Your task to perform on an android device: show emergency info Image 0: 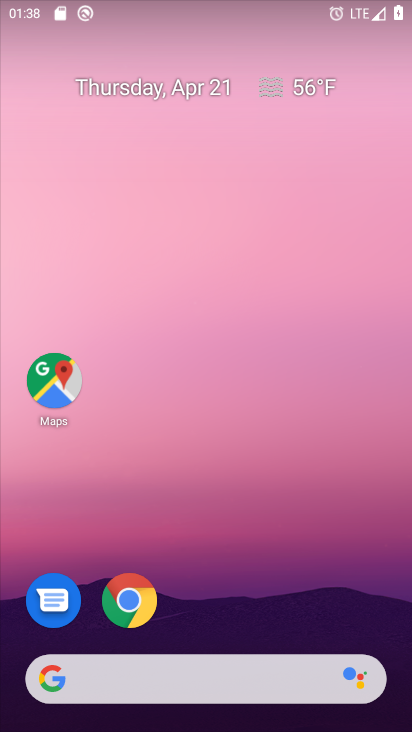
Step 0: drag from (287, 599) to (280, 99)
Your task to perform on an android device: show emergency info Image 1: 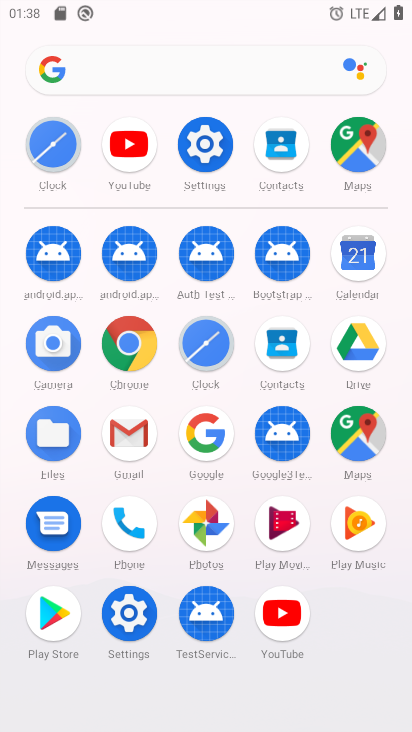
Step 1: click (213, 144)
Your task to perform on an android device: show emergency info Image 2: 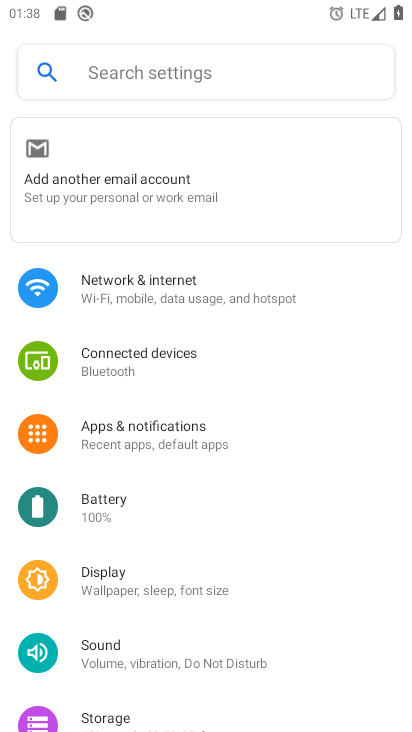
Step 2: drag from (199, 639) to (210, 151)
Your task to perform on an android device: show emergency info Image 3: 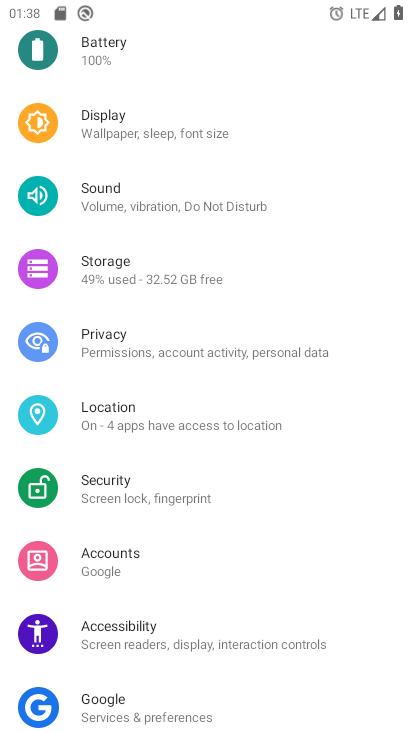
Step 3: drag from (235, 683) to (238, 229)
Your task to perform on an android device: show emergency info Image 4: 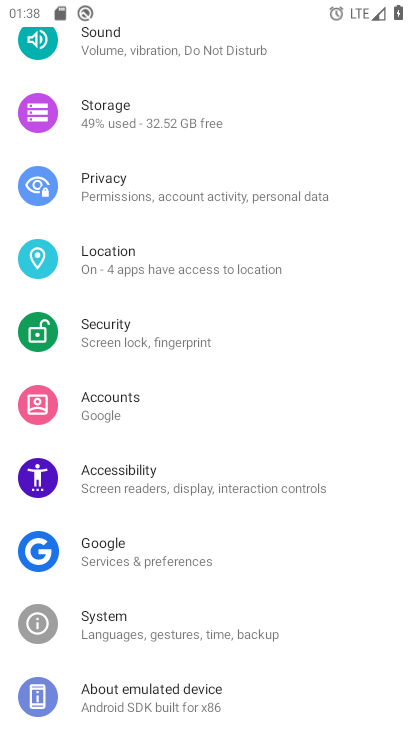
Step 4: click (197, 695)
Your task to perform on an android device: show emergency info Image 5: 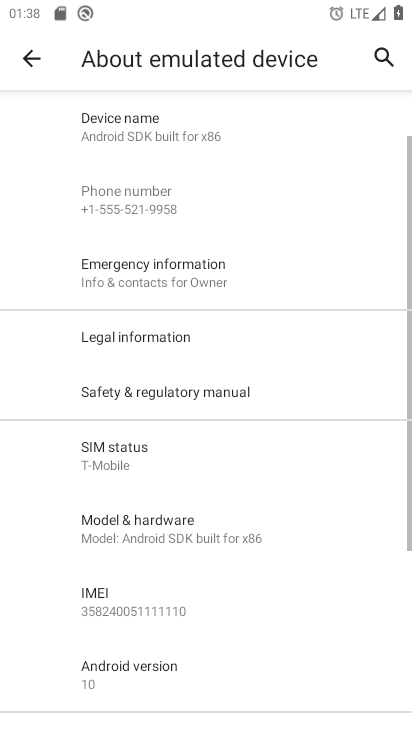
Step 5: click (211, 273)
Your task to perform on an android device: show emergency info Image 6: 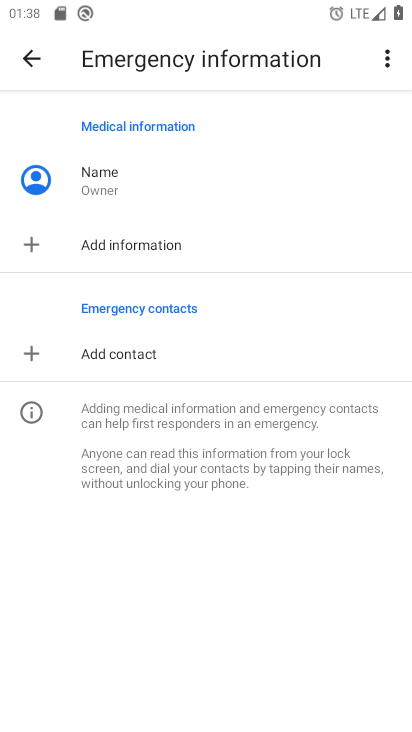
Step 6: task complete